Your task to perform on an android device: What's on my calendar today? Image 0: 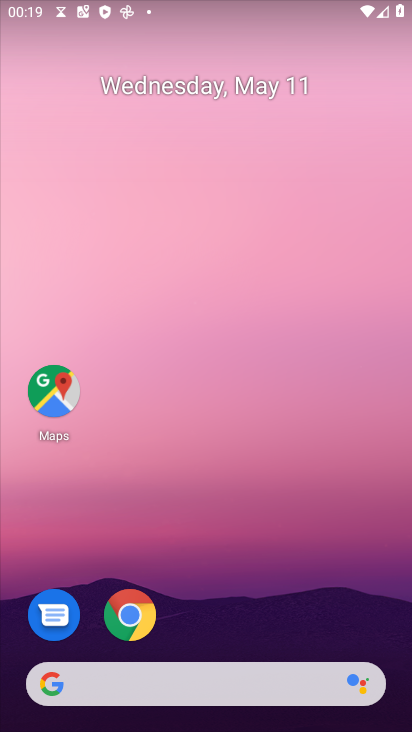
Step 0: drag from (281, 560) to (222, 128)
Your task to perform on an android device: What's on my calendar today? Image 1: 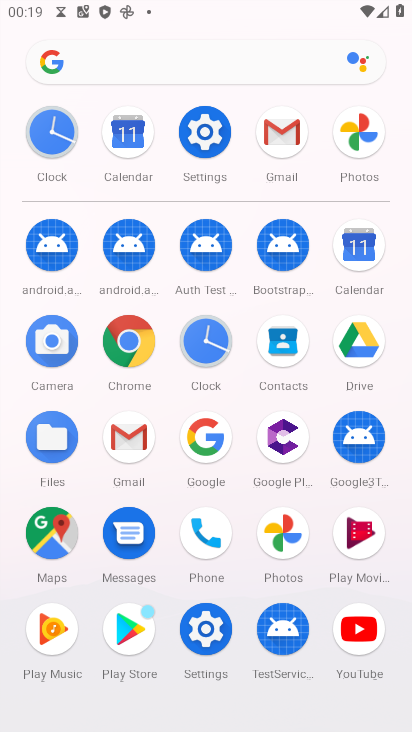
Step 1: click (356, 248)
Your task to perform on an android device: What's on my calendar today? Image 2: 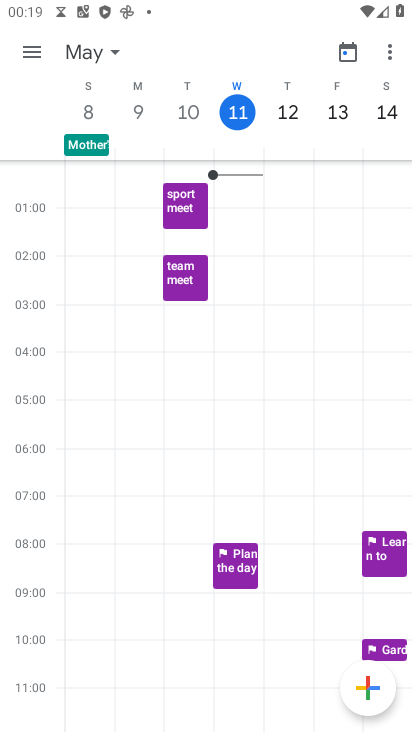
Step 2: click (355, 52)
Your task to perform on an android device: What's on my calendar today? Image 3: 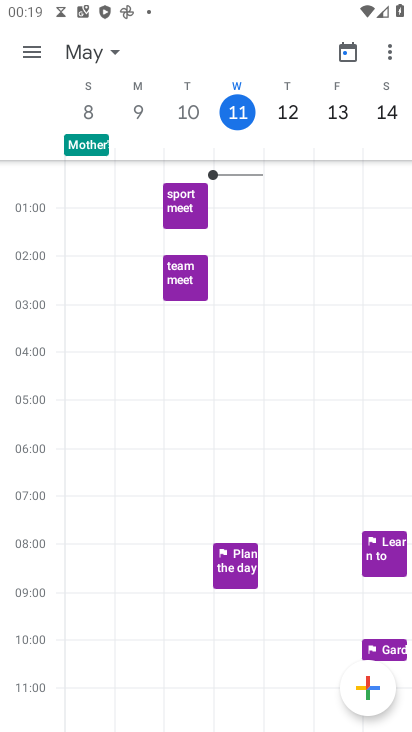
Step 3: click (346, 54)
Your task to perform on an android device: What's on my calendar today? Image 4: 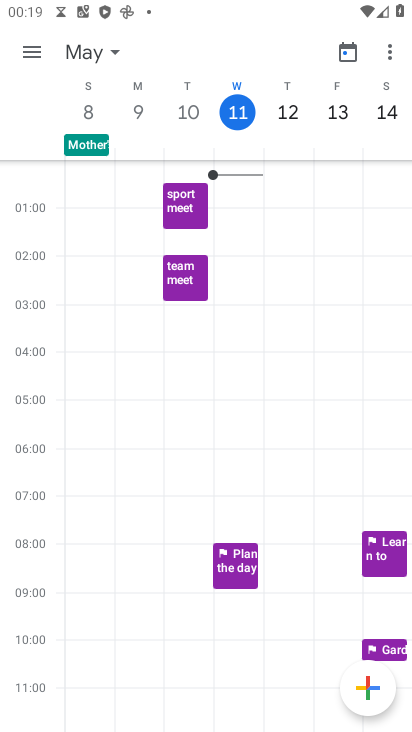
Step 4: click (112, 52)
Your task to perform on an android device: What's on my calendar today? Image 5: 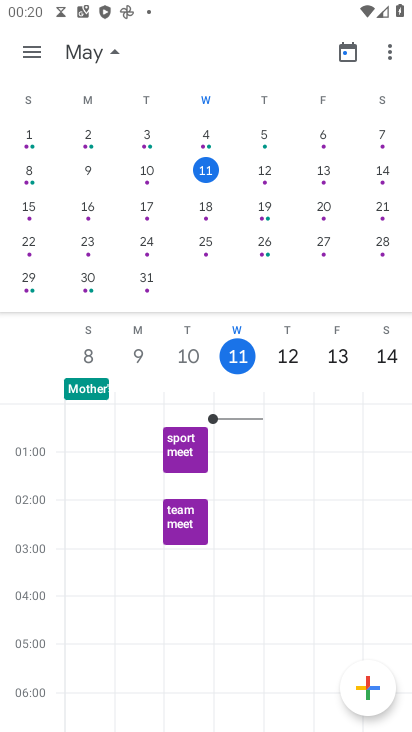
Step 5: click (206, 173)
Your task to perform on an android device: What's on my calendar today? Image 6: 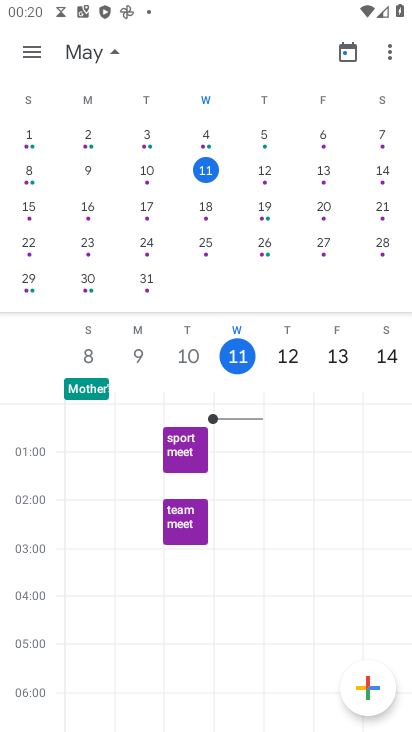
Step 6: click (31, 47)
Your task to perform on an android device: What's on my calendar today? Image 7: 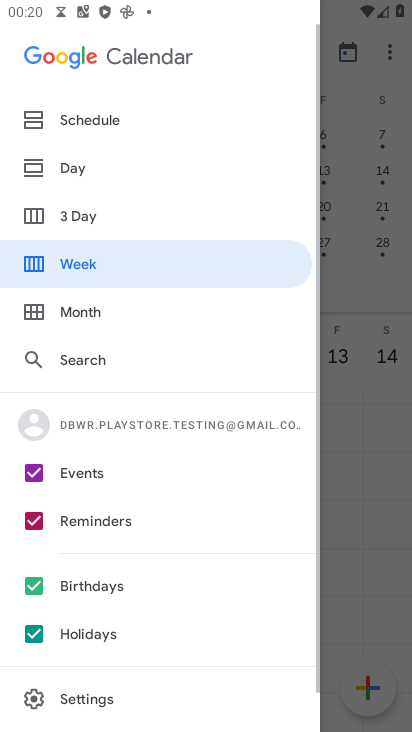
Step 7: click (59, 124)
Your task to perform on an android device: What's on my calendar today? Image 8: 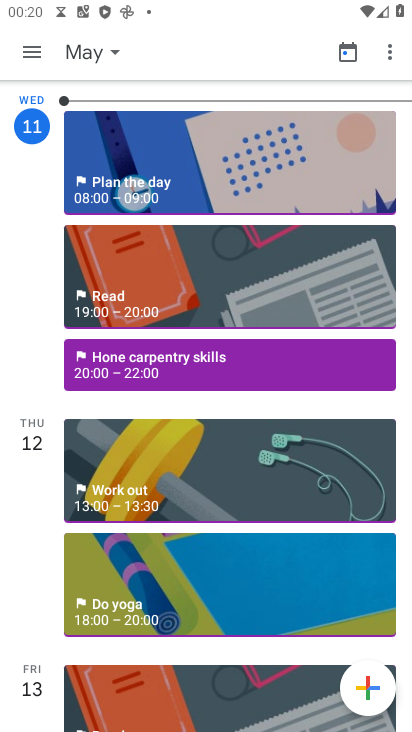
Step 8: task complete